Your task to perform on an android device: Open network settings Image 0: 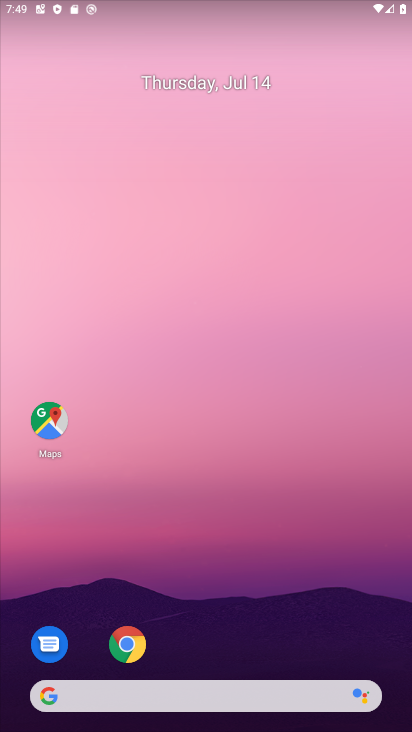
Step 0: drag from (107, 680) to (334, 338)
Your task to perform on an android device: Open network settings Image 1: 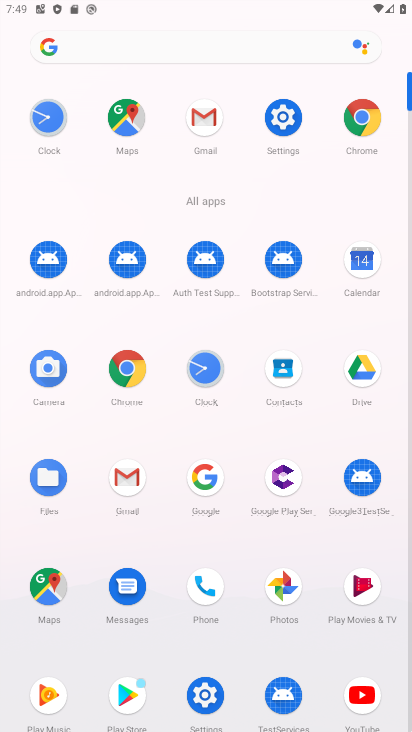
Step 1: click (291, 110)
Your task to perform on an android device: Open network settings Image 2: 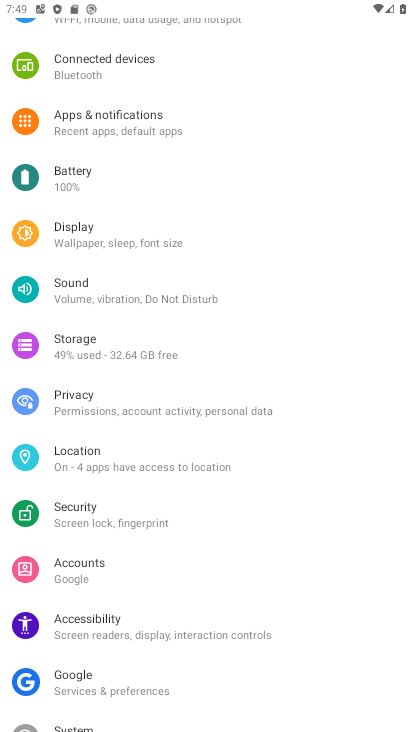
Step 2: drag from (235, 73) to (149, 369)
Your task to perform on an android device: Open network settings Image 3: 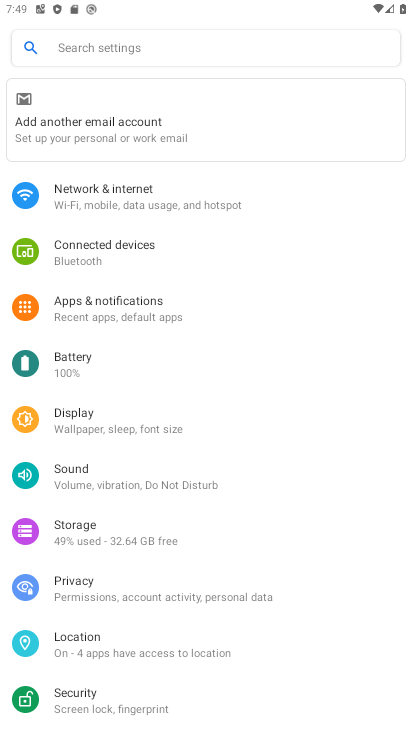
Step 3: click (146, 203)
Your task to perform on an android device: Open network settings Image 4: 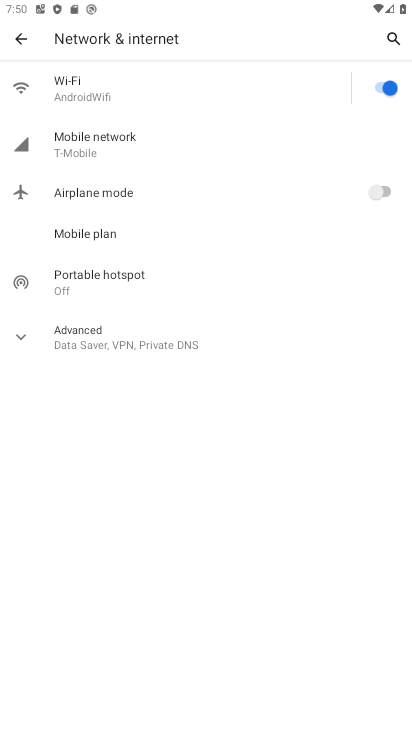
Step 4: click (146, 141)
Your task to perform on an android device: Open network settings Image 5: 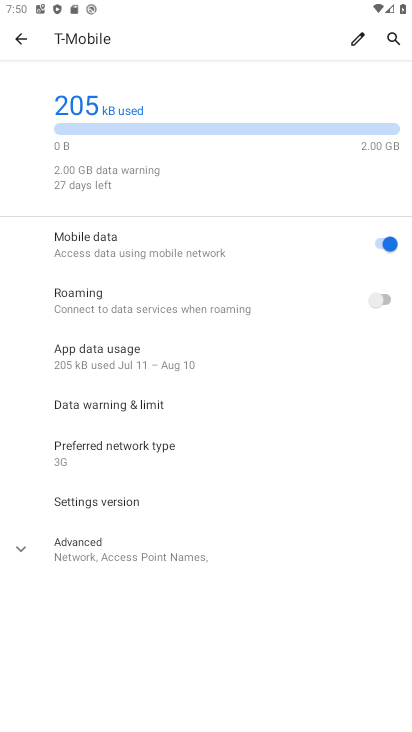
Step 5: task complete